Your task to perform on an android device: uninstall "Flipkart Online Shopping App" Image 0: 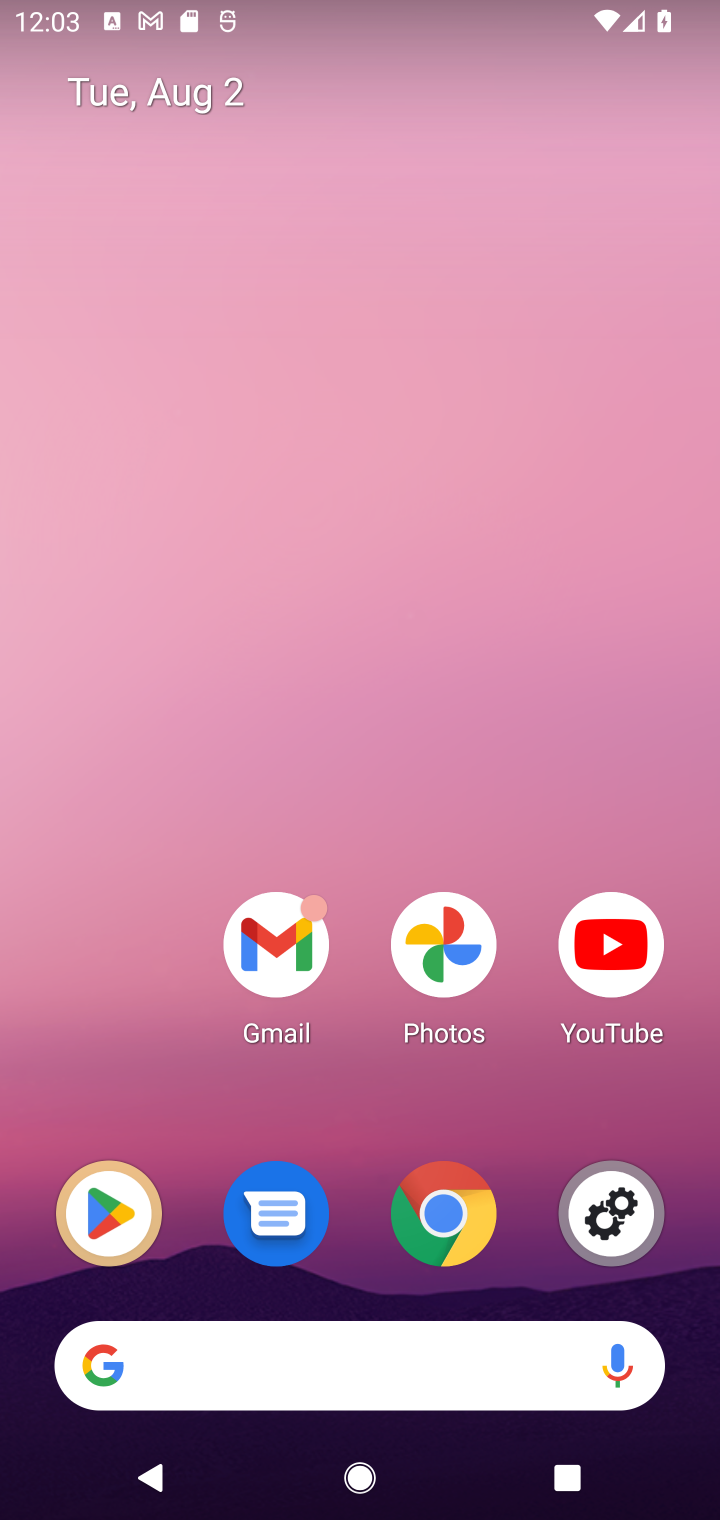
Step 0: click (66, 1222)
Your task to perform on an android device: uninstall "Flipkart Online Shopping App" Image 1: 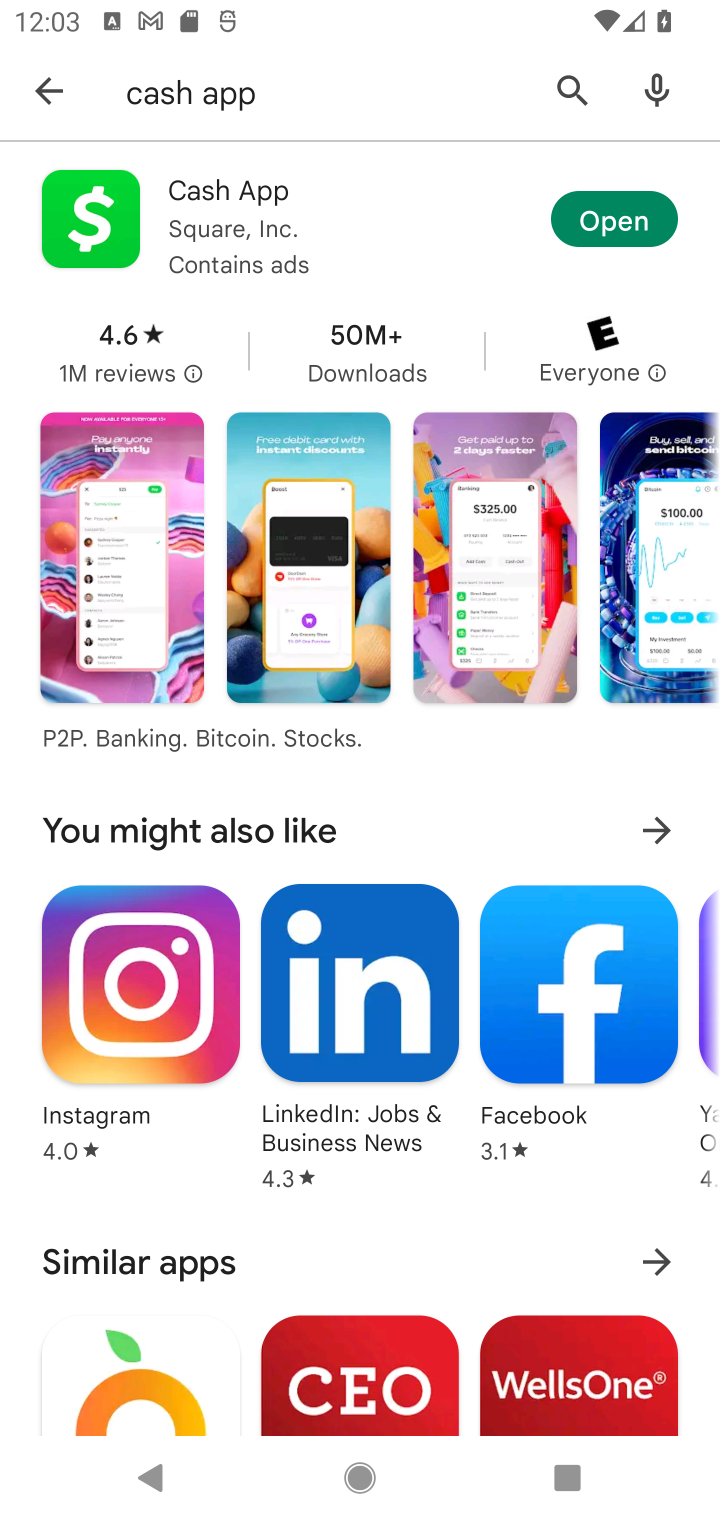
Step 1: click (56, 97)
Your task to perform on an android device: uninstall "Flipkart Online Shopping App" Image 2: 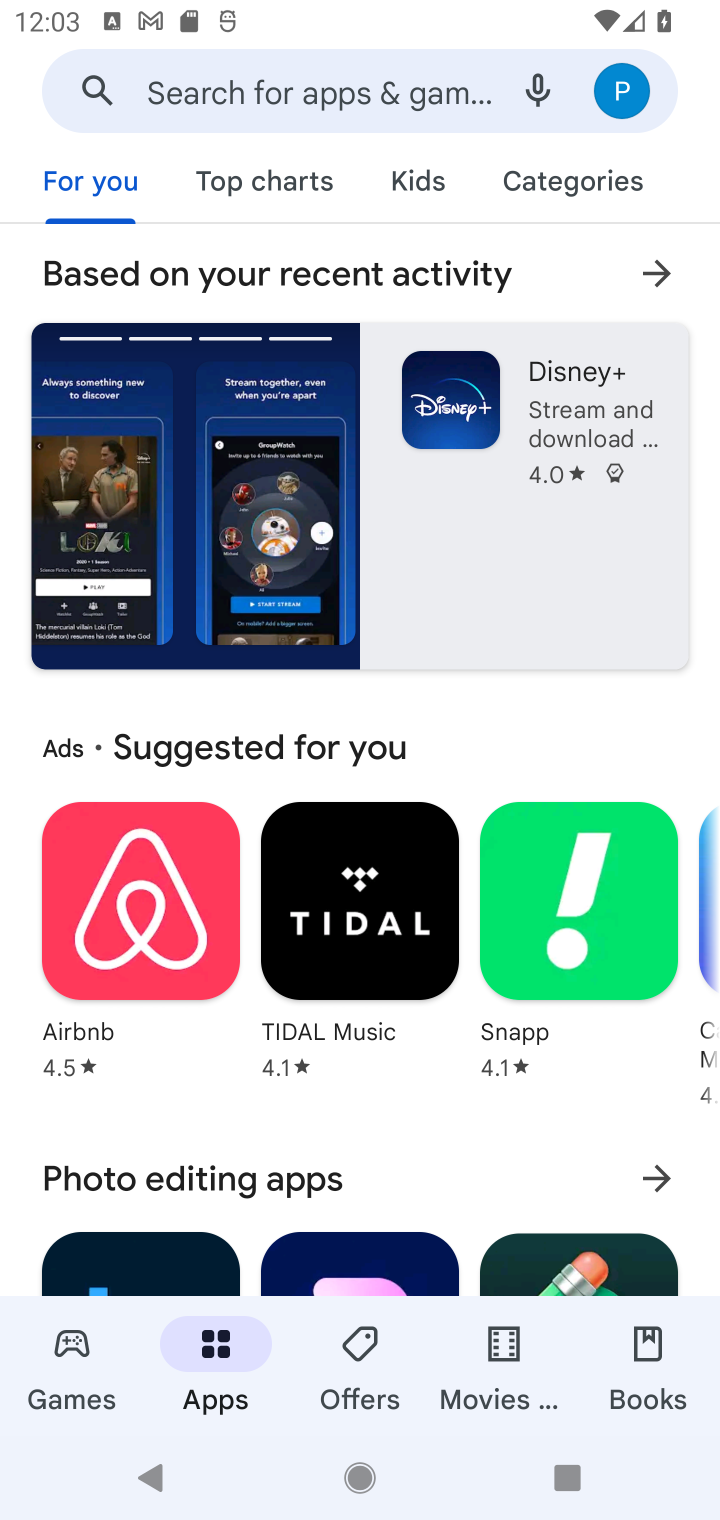
Step 2: click (258, 91)
Your task to perform on an android device: uninstall "Flipkart Online Shopping App" Image 3: 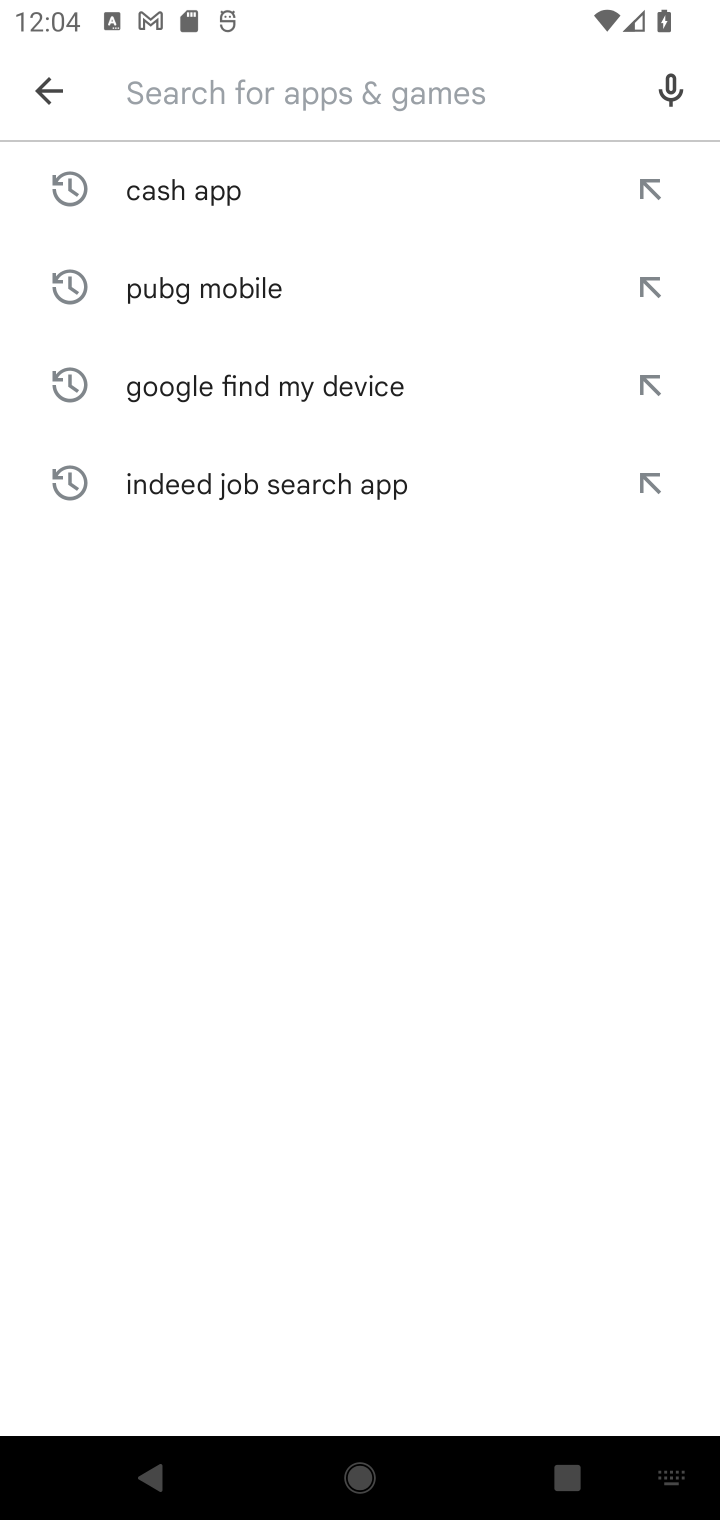
Step 3: type "Flipkart Online Shopping App"
Your task to perform on an android device: uninstall "Flipkart Online Shopping App" Image 4: 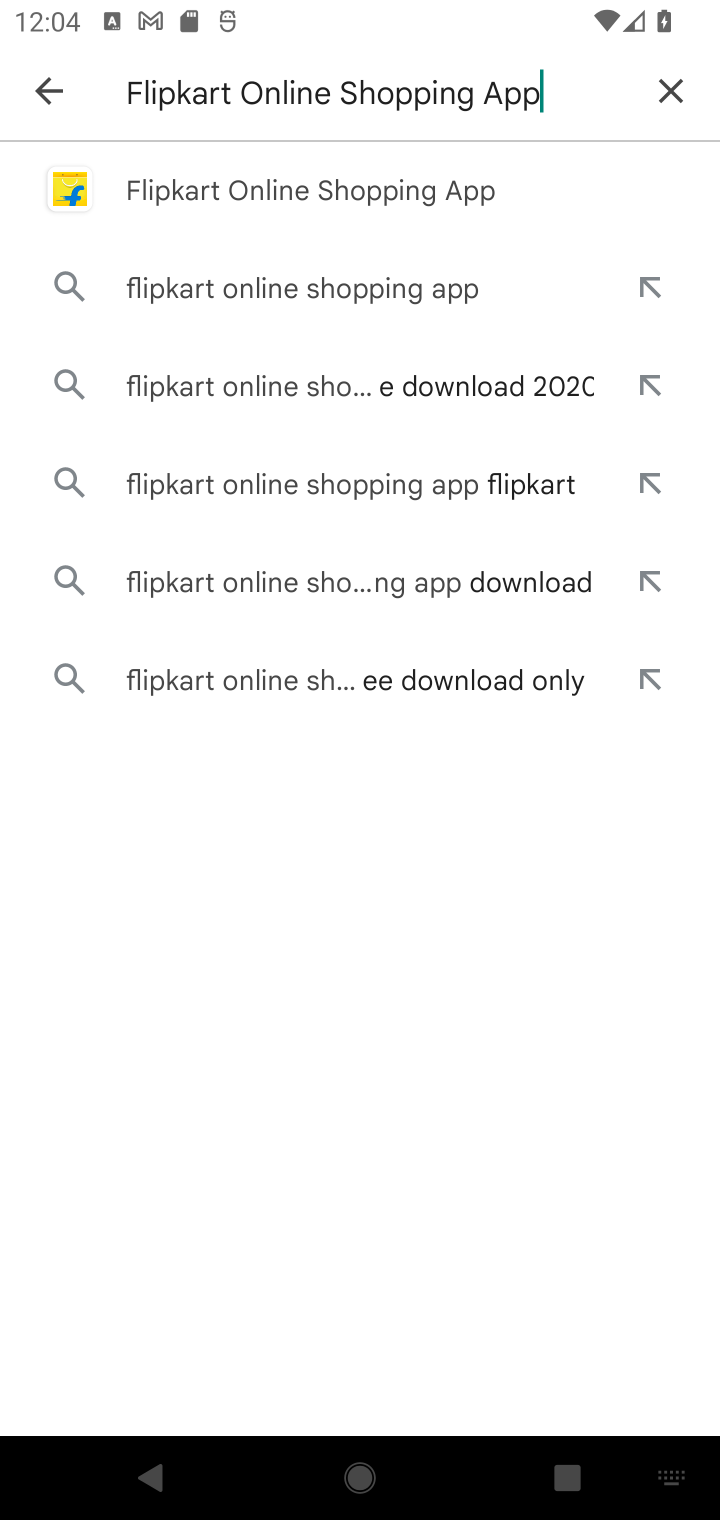
Step 4: click (333, 191)
Your task to perform on an android device: uninstall "Flipkart Online Shopping App" Image 5: 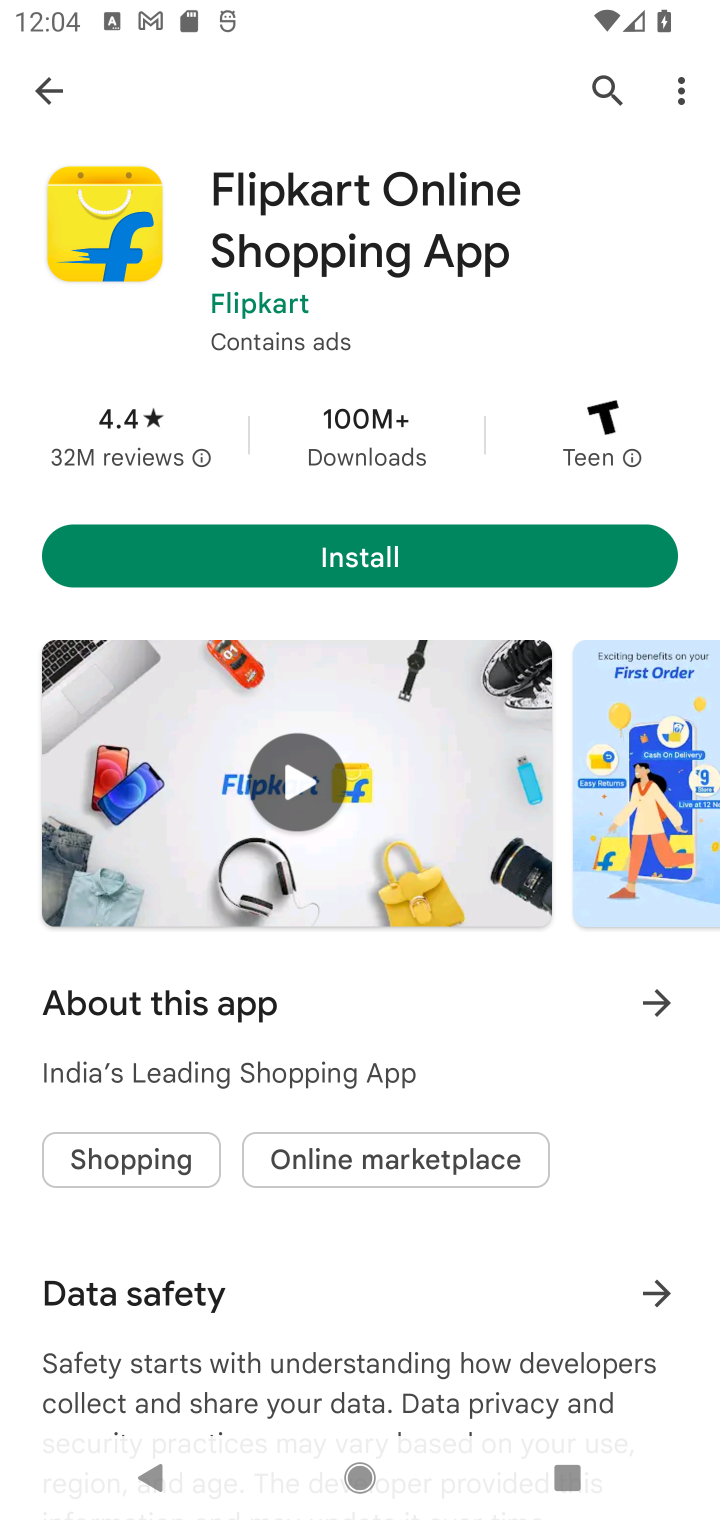
Step 5: click (356, 562)
Your task to perform on an android device: uninstall "Flipkart Online Shopping App" Image 6: 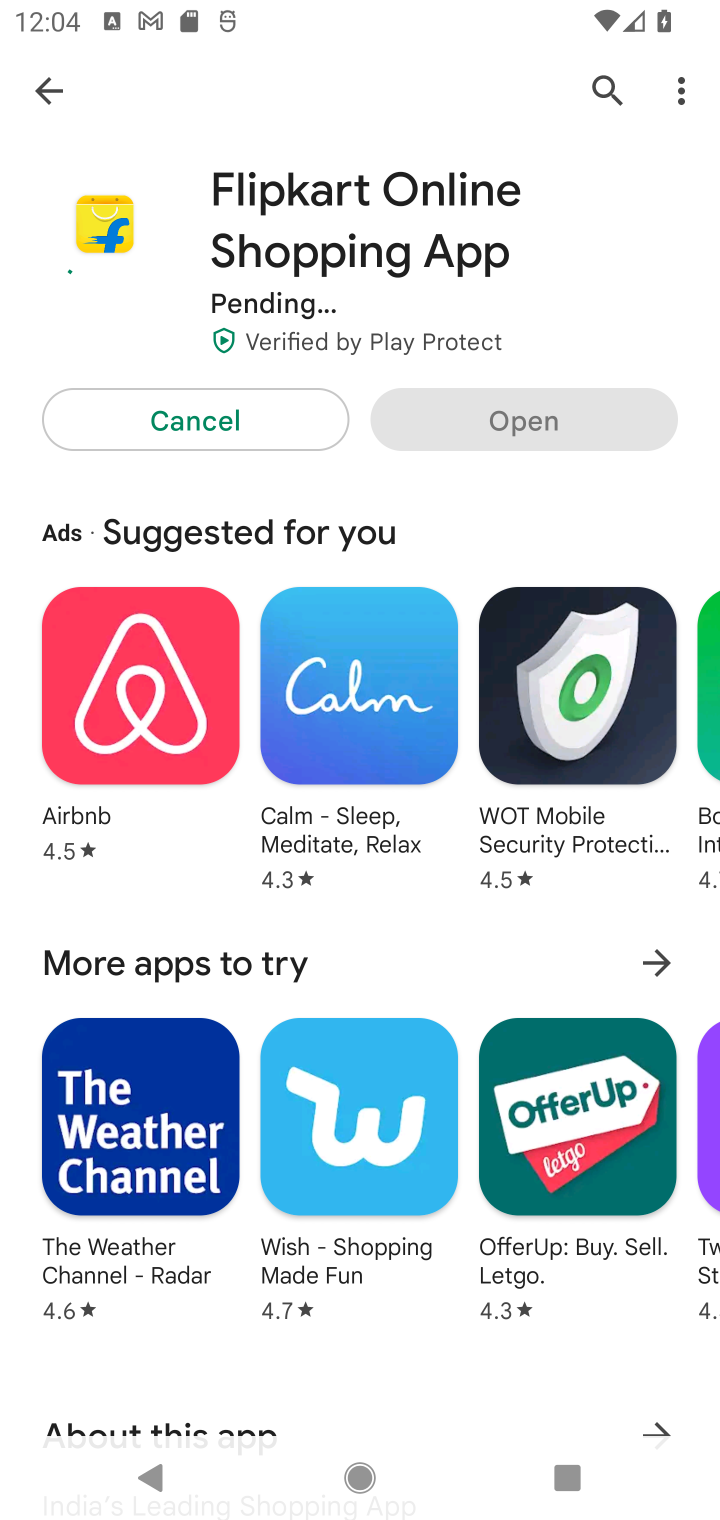
Step 6: task complete